Your task to perform on an android device: turn off improve location accuracy Image 0: 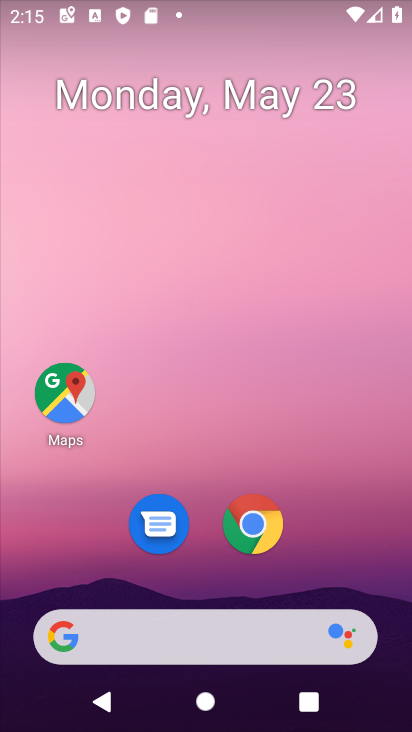
Step 0: drag from (224, 458) to (230, 38)
Your task to perform on an android device: turn off improve location accuracy Image 1: 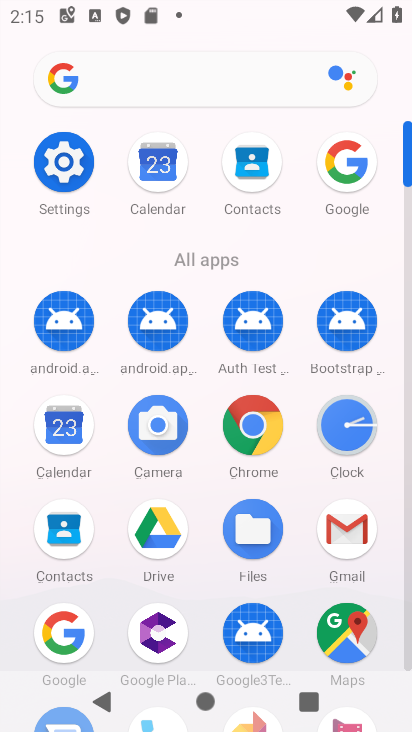
Step 1: click (68, 166)
Your task to perform on an android device: turn off improve location accuracy Image 2: 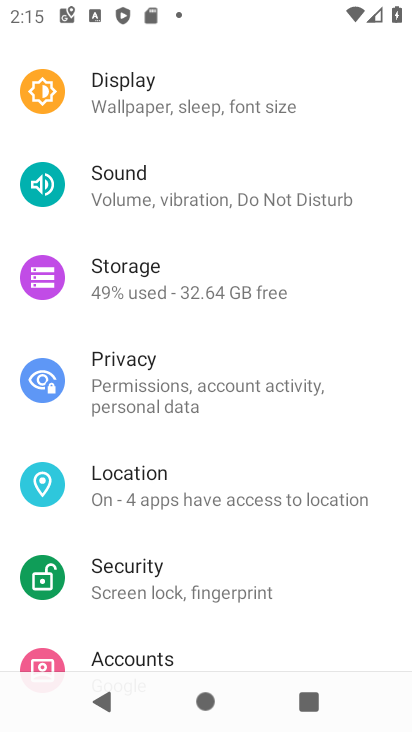
Step 2: click (203, 477)
Your task to perform on an android device: turn off improve location accuracy Image 3: 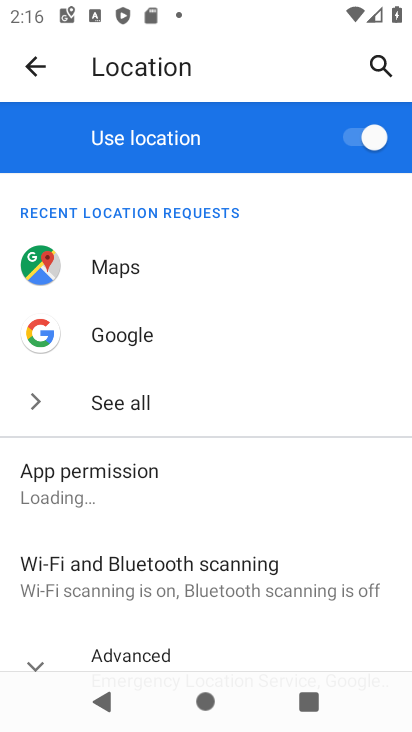
Step 3: drag from (201, 511) to (210, 182)
Your task to perform on an android device: turn off improve location accuracy Image 4: 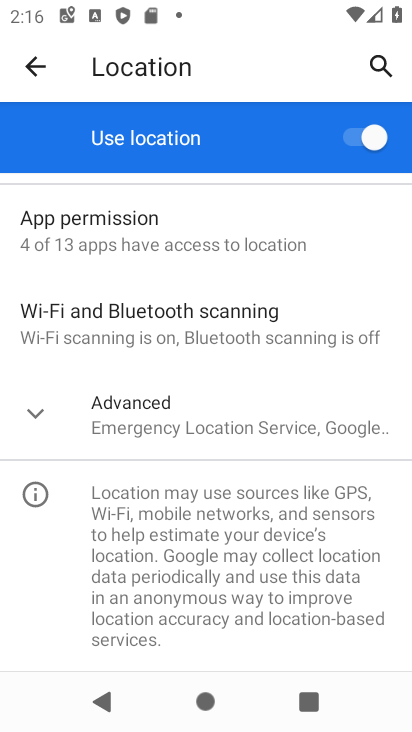
Step 4: click (36, 411)
Your task to perform on an android device: turn off improve location accuracy Image 5: 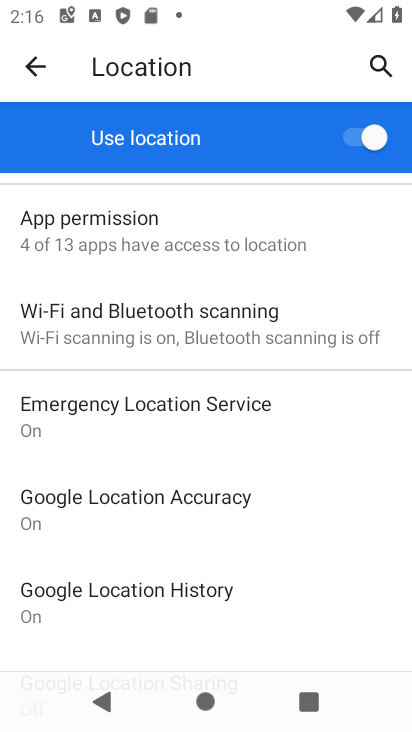
Step 5: drag from (267, 537) to (282, 390)
Your task to perform on an android device: turn off improve location accuracy Image 6: 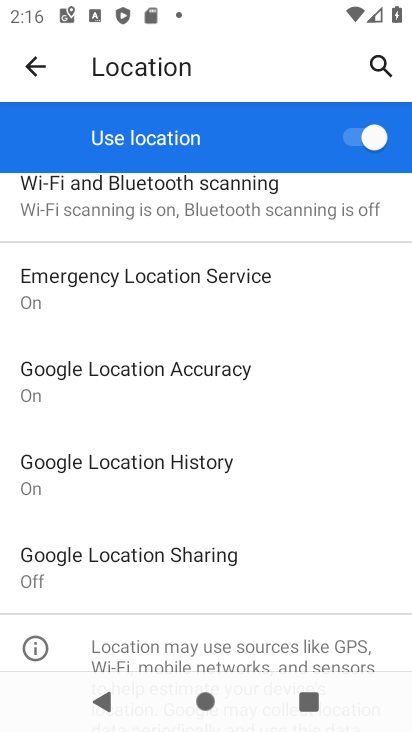
Step 6: click (239, 388)
Your task to perform on an android device: turn off improve location accuracy Image 7: 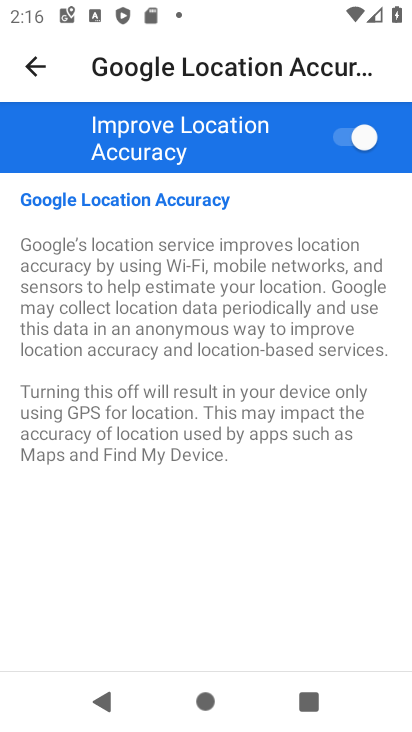
Step 7: click (347, 141)
Your task to perform on an android device: turn off improve location accuracy Image 8: 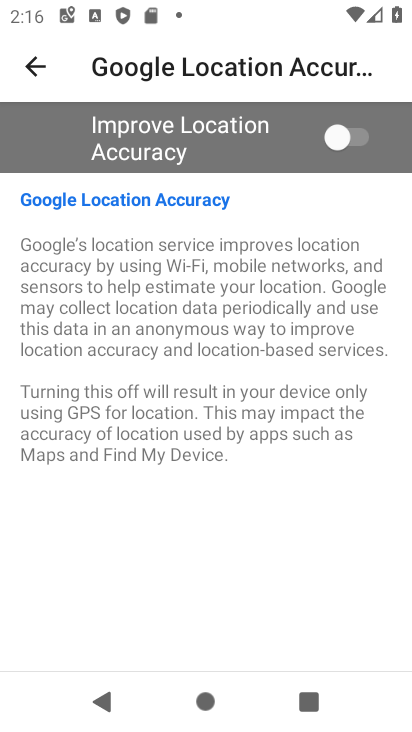
Step 8: task complete